Your task to perform on an android device: Show me recent news Image 0: 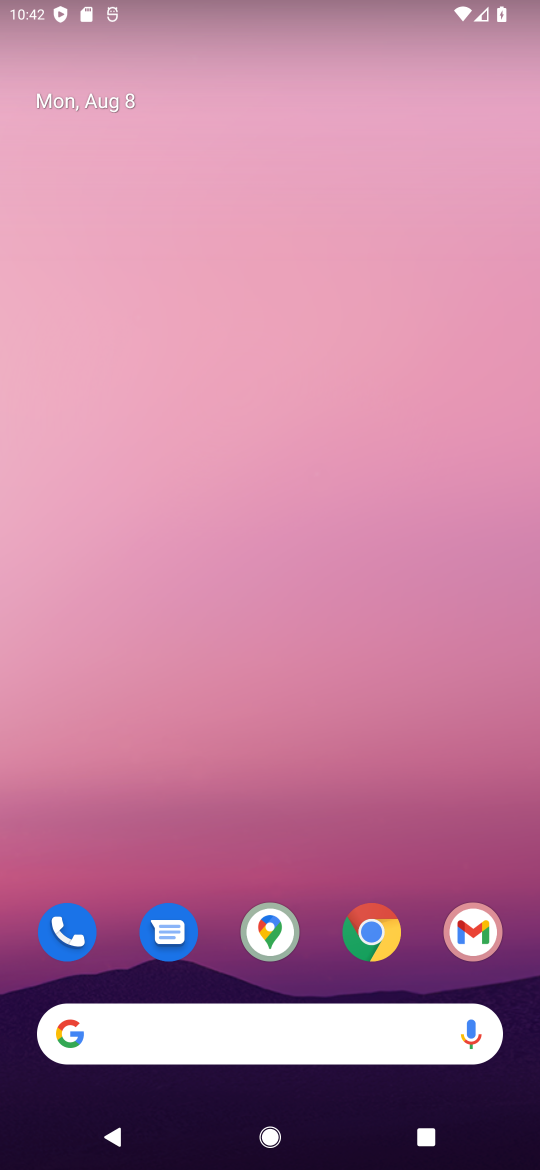
Step 0: click (311, 1046)
Your task to perform on an android device: Show me recent news Image 1: 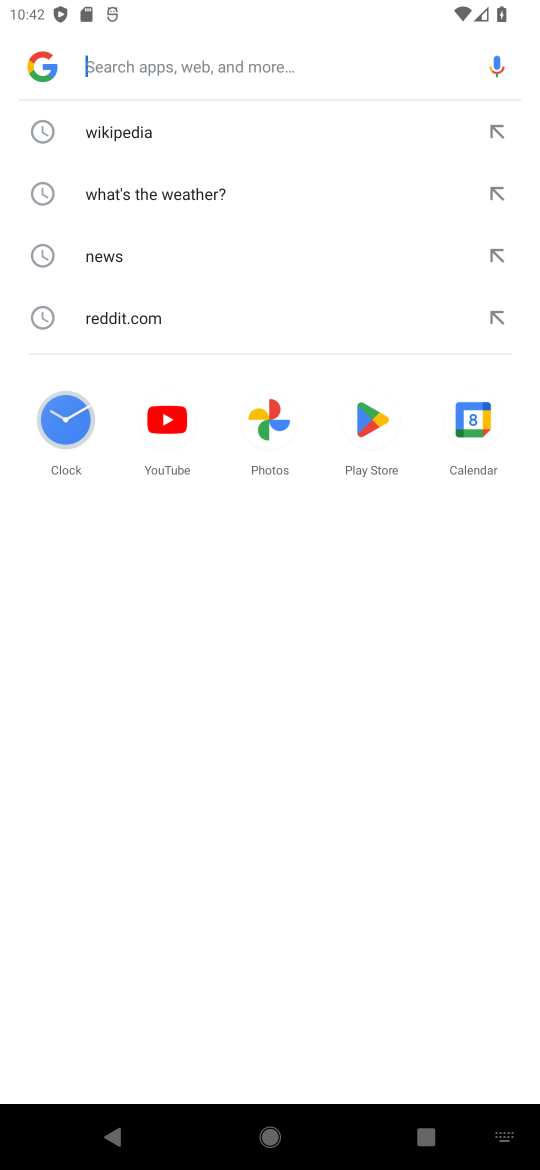
Step 1: click (16, 82)
Your task to perform on an android device: Show me recent news Image 2: 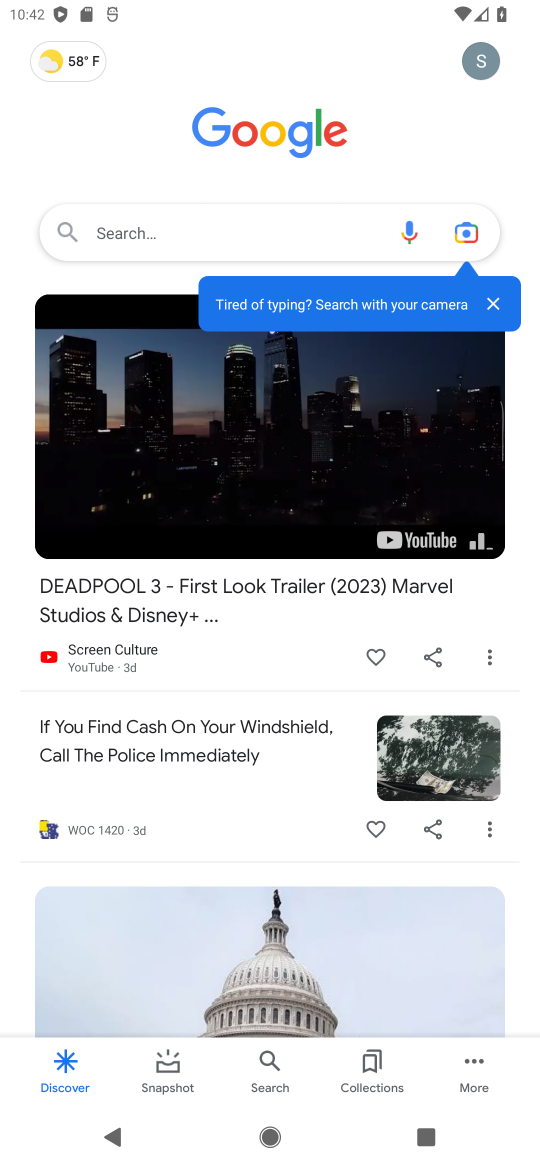
Step 2: task complete